Your task to perform on an android device: empty trash in the gmail app Image 0: 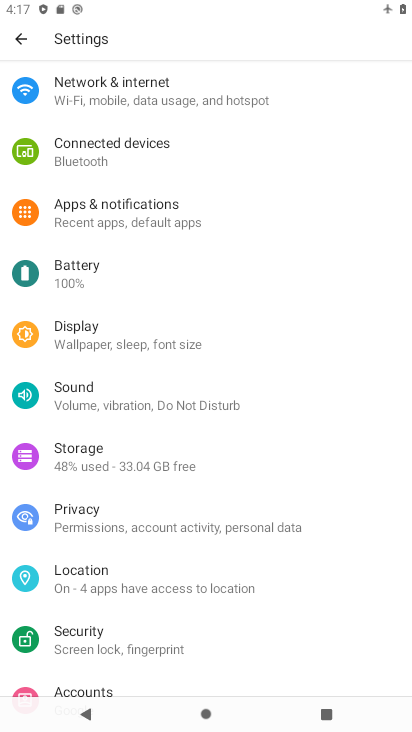
Step 0: press home button
Your task to perform on an android device: empty trash in the gmail app Image 1: 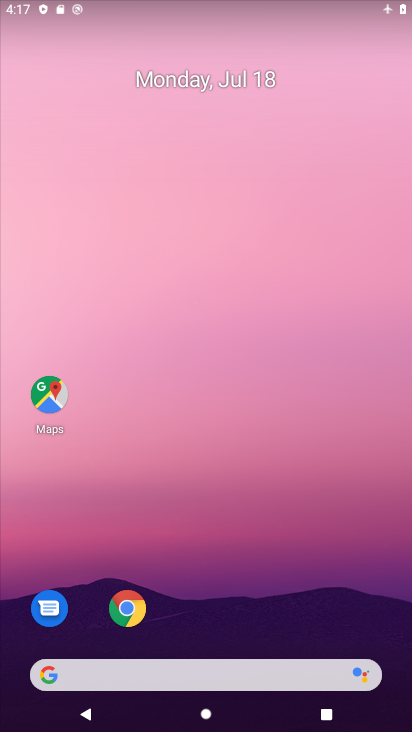
Step 1: drag from (267, 226) to (281, 57)
Your task to perform on an android device: empty trash in the gmail app Image 2: 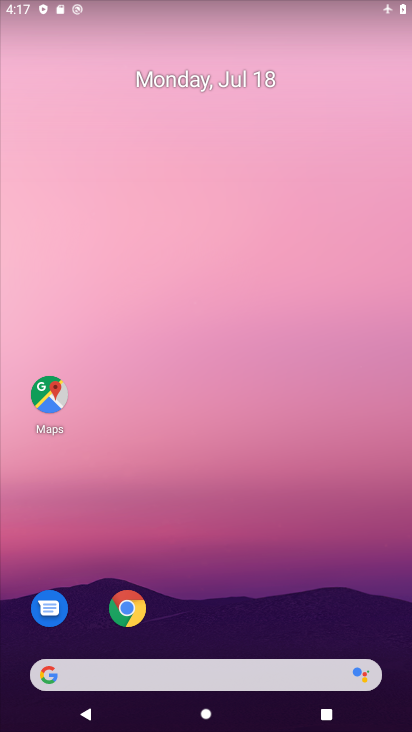
Step 2: drag from (283, 679) to (384, 123)
Your task to perform on an android device: empty trash in the gmail app Image 3: 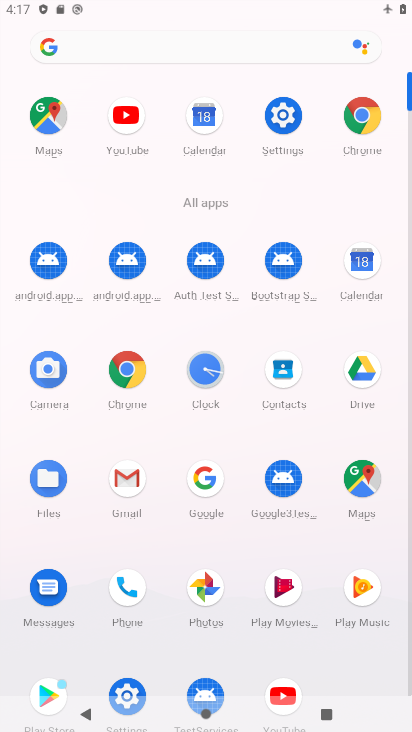
Step 3: click (138, 483)
Your task to perform on an android device: empty trash in the gmail app Image 4: 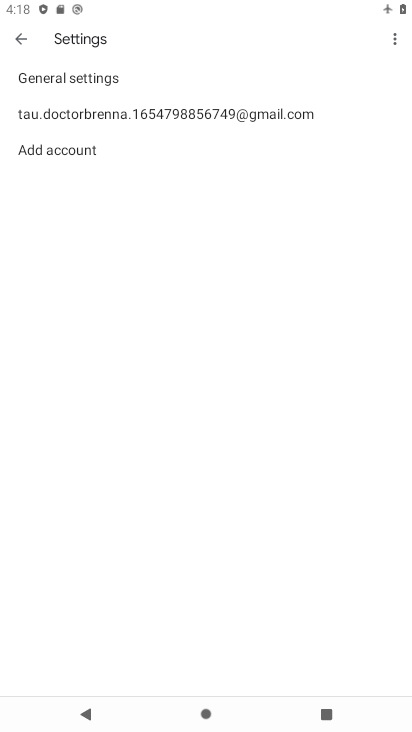
Step 4: click (13, 30)
Your task to perform on an android device: empty trash in the gmail app Image 5: 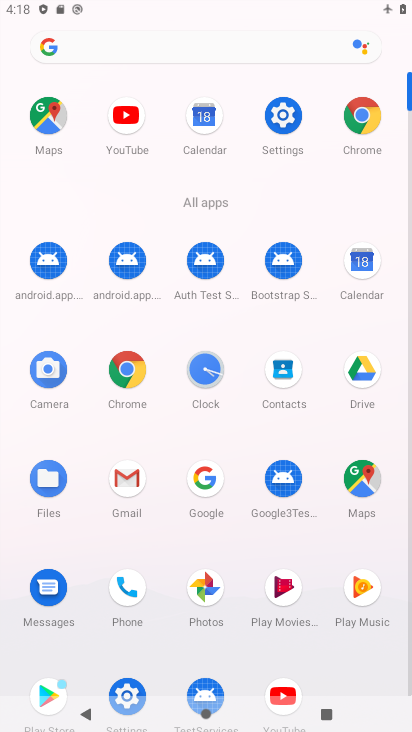
Step 5: click (123, 482)
Your task to perform on an android device: empty trash in the gmail app Image 6: 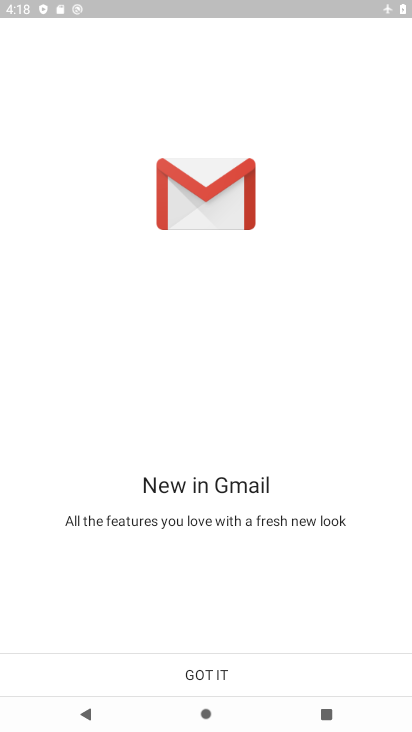
Step 6: click (223, 694)
Your task to perform on an android device: empty trash in the gmail app Image 7: 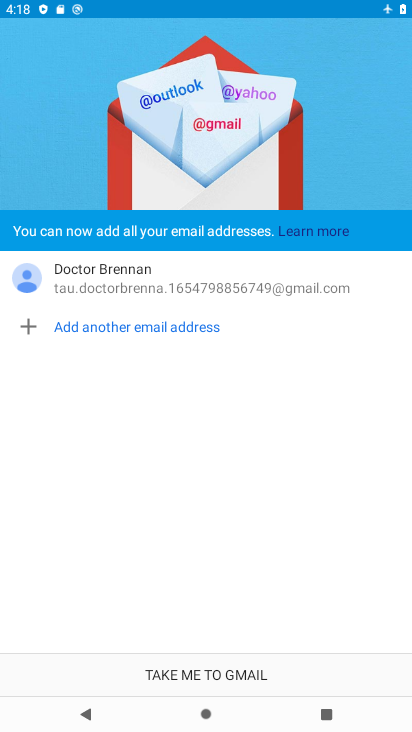
Step 7: click (179, 681)
Your task to perform on an android device: empty trash in the gmail app Image 8: 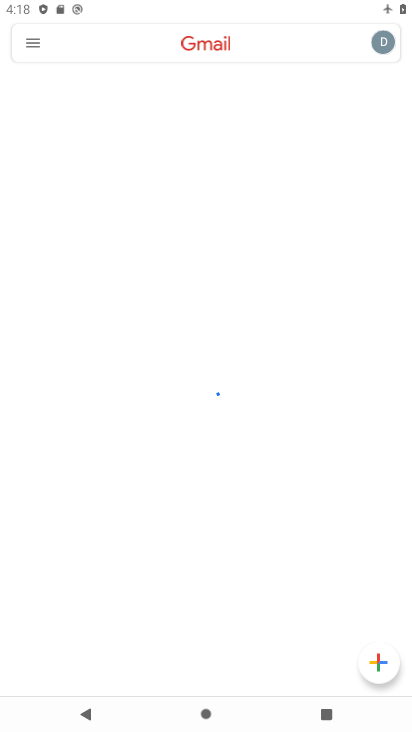
Step 8: click (36, 40)
Your task to perform on an android device: empty trash in the gmail app Image 9: 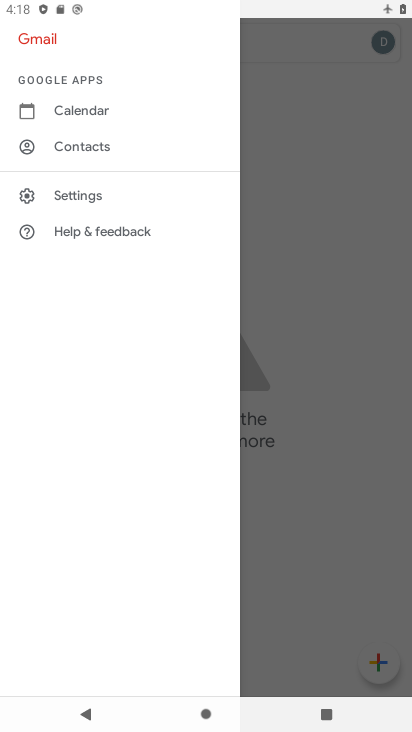
Step 9: click (336, 235)
Your task to perform on an android device: empty trash in the gmail app Image 10: 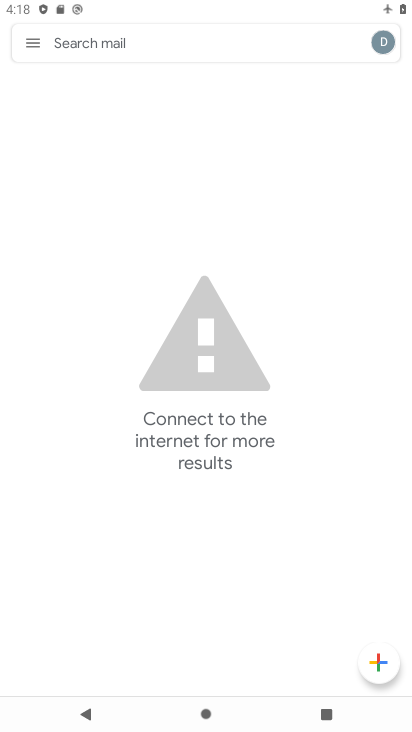
Step 10: click (34, 45)
Your task to perform on an android device: empty trash in the gmail app Image 11: 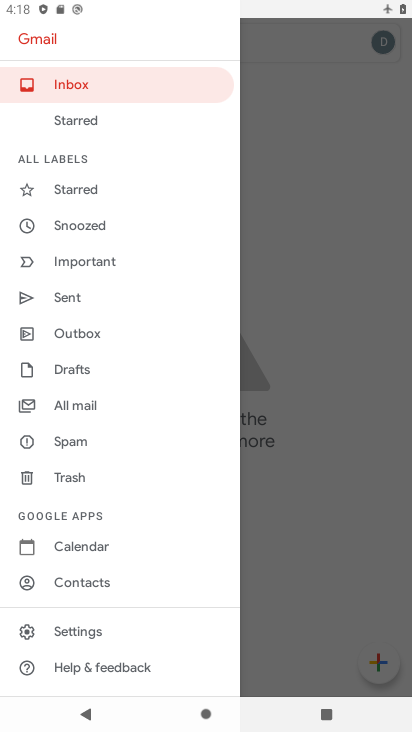
Step 11: click (76, 477)
Your task to perform on an android device: empty trash in the gmail app Image 12: 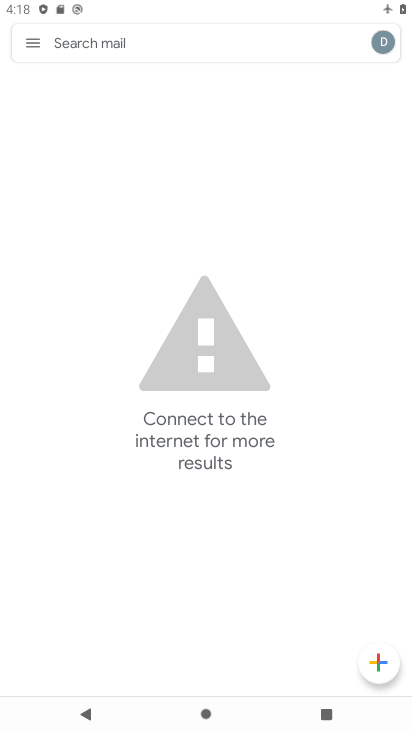
Step 12: task complete